Your task to perform on an android device: Search for Italian restaurants on Maps Image 0: 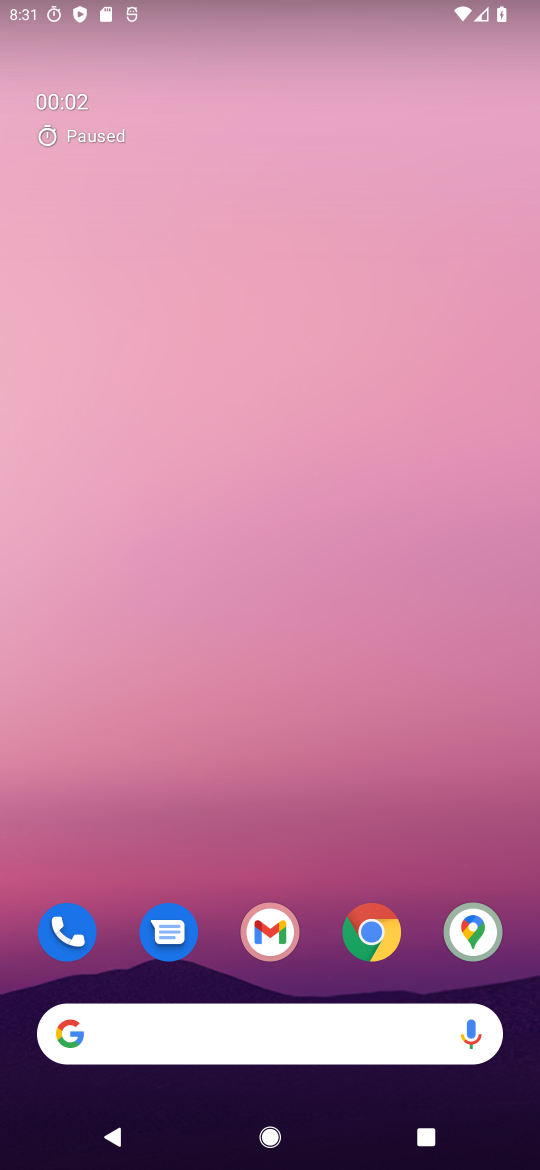
Step 0: press home button
Your task to perform on an android device: Search for Italian restaurants on Maps Image 1: 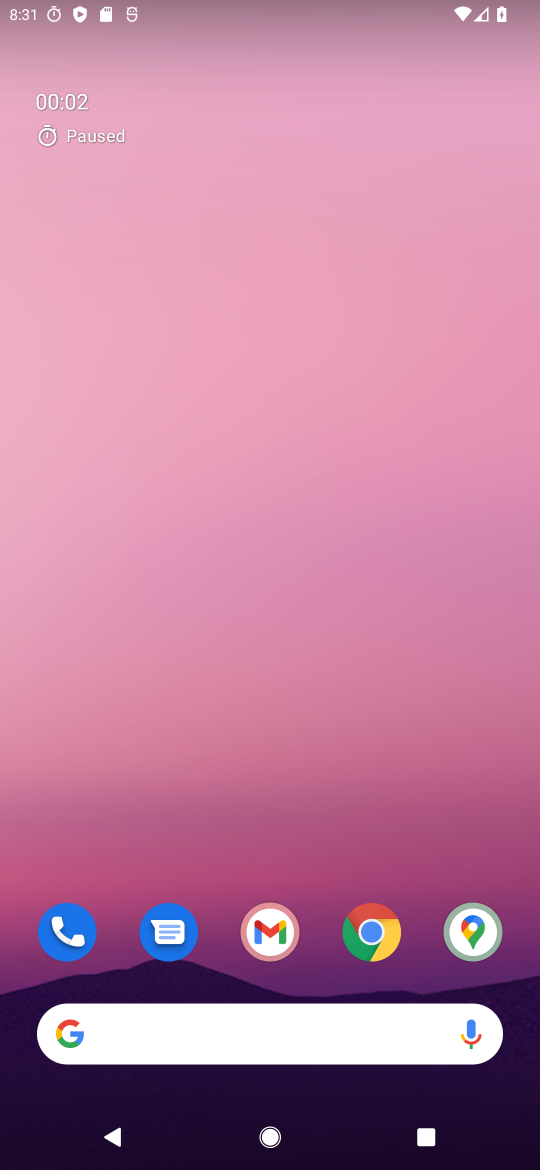
Step 1: drag from (184, 1030) to (385, 156)
Your task to perform on an android device: Search for Italian restaurants on Maps Image 2: 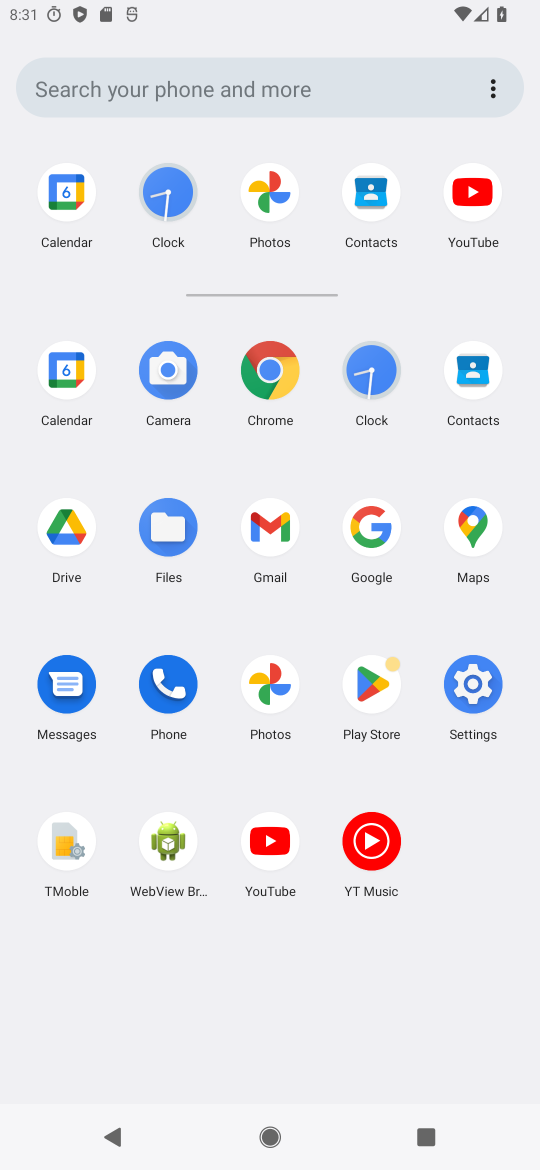
Step 2: click (477, 524)
Your task to perform on an android device: Search for Italian restaurants on Maps Image 3: 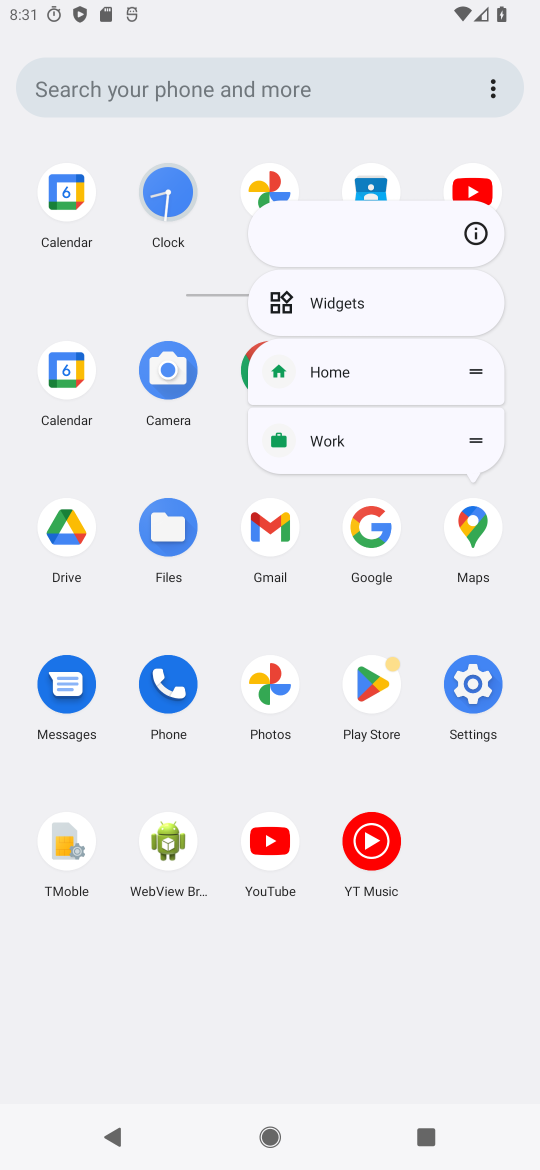
Step 3: click (475, 537)
Your task to perform on an android device: Search for Italian restaurants on Maps Image 4: 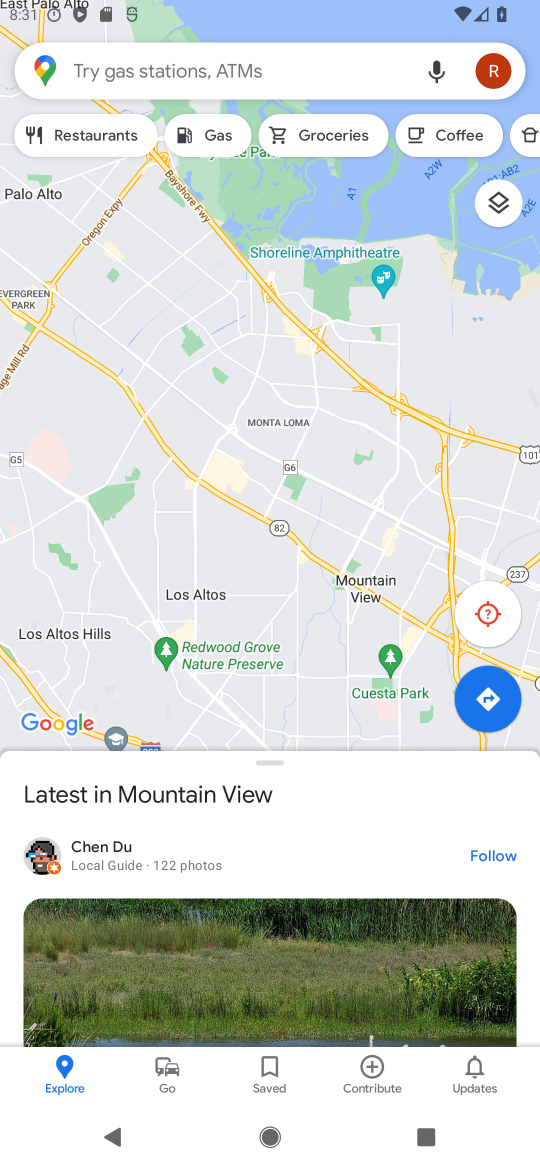
Step 4: click (162, 63)
Your task to perform on an android device: Search for Italian restaurants on Maps Image 5: 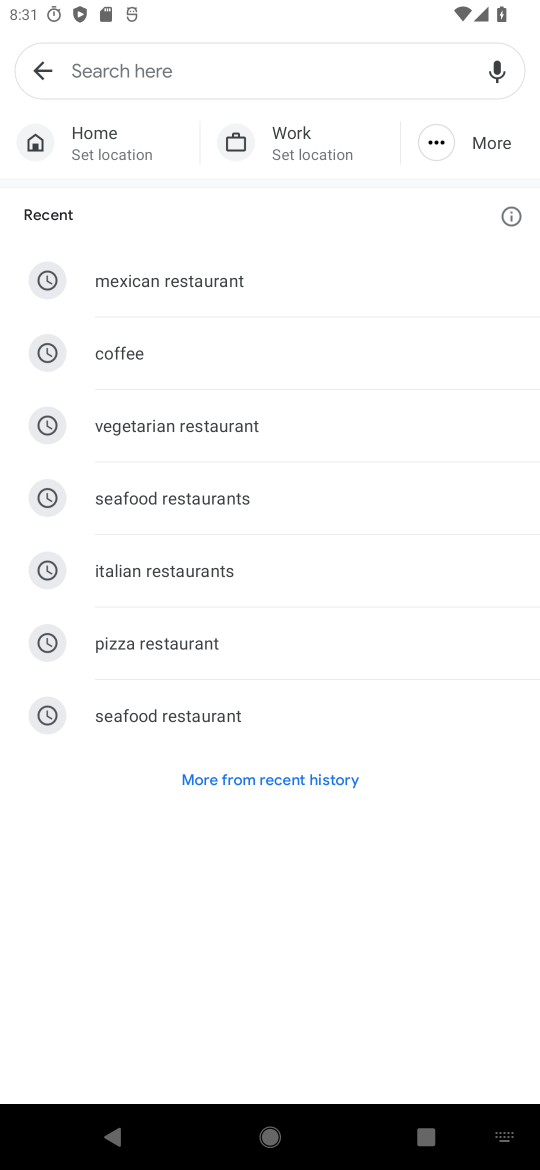
Step 5: click (167, 564)
Your task to perform on an android device: Search for Italian restaurants on Maps Image 6: 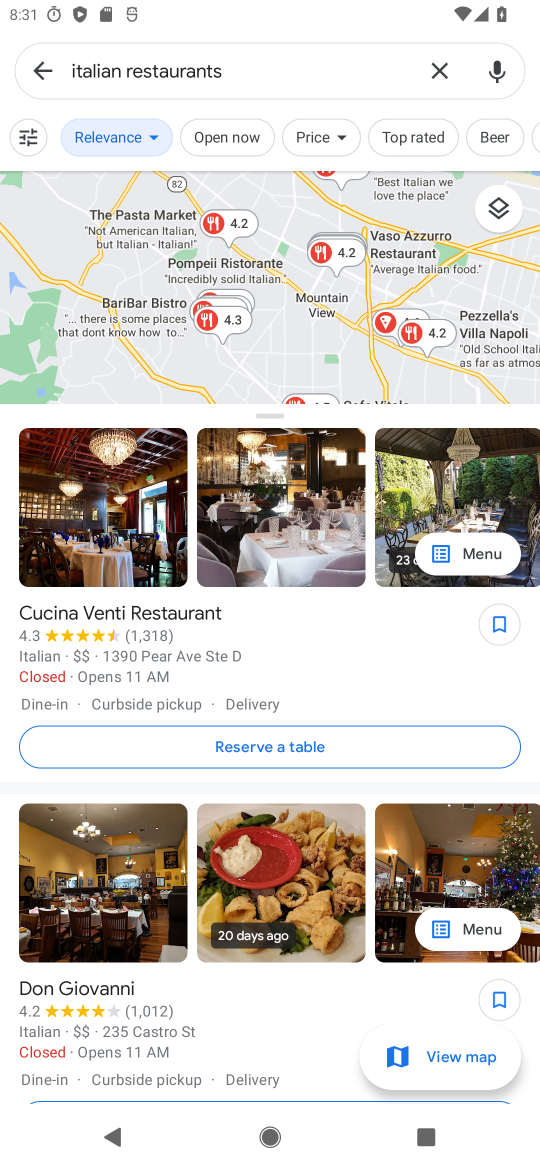
Step 6: task complete